Your task to perform on an android device: Open Amazon Image 0: 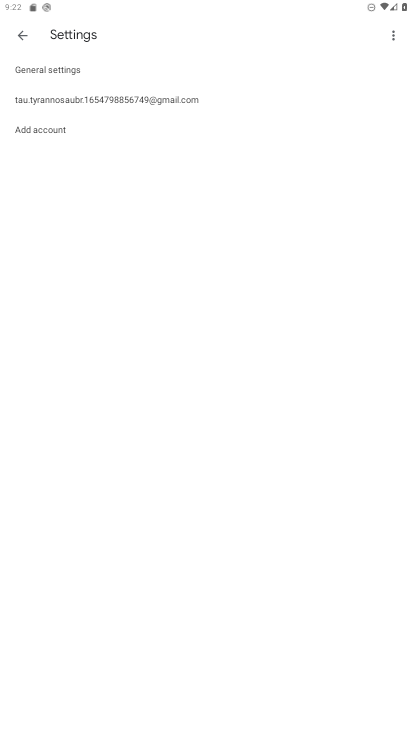
Step 0: press home button
Your task to perform on an android device: Open Amazon Image 1: 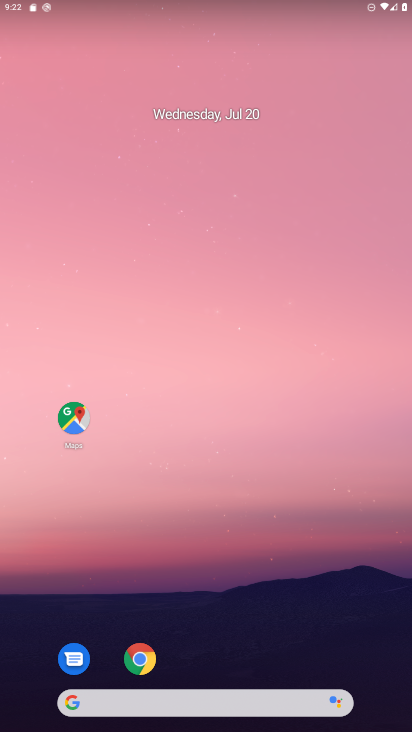
Step 1: drag from (282, 520) to (239, 119)
Your task to perform on an android device: Open Amazon Image 2: 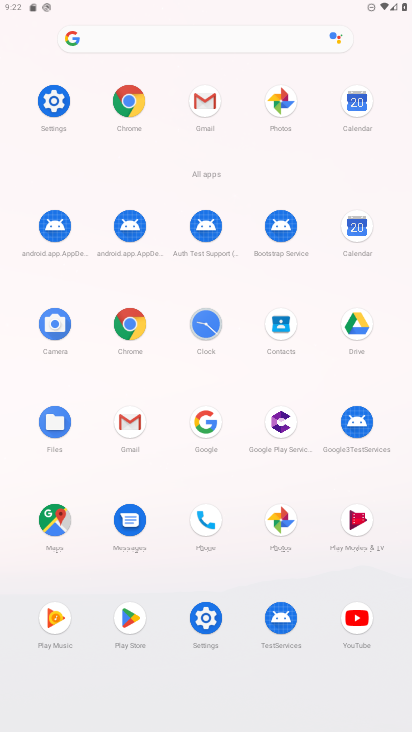
Step 2: click (124, 311)
Your task to perform on an android device: Open Amazon Image 3: 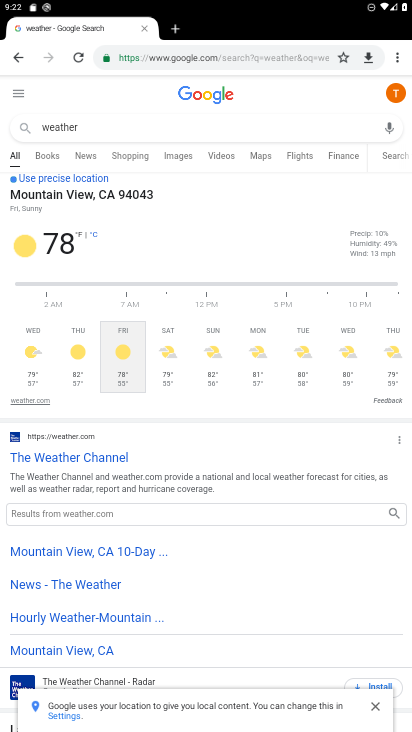
Step 3: click (202, 65)
Your task to perform on an android device: Open Amazon Image 4: 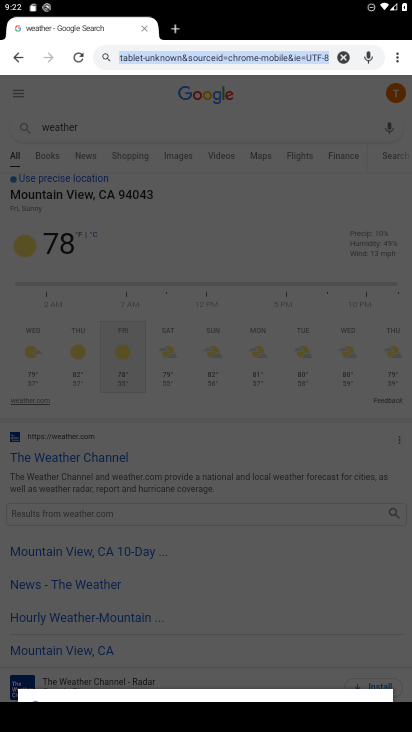
Step 4: type "Amazon"
Your task to perform on an android device: Open Amazon Image 5: 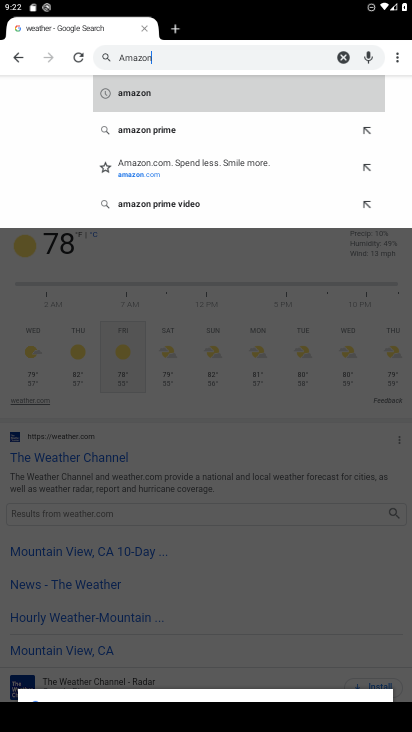
Step 5: click (145, 173)
Your task to perform on an android device: Open Amazon Image 6: 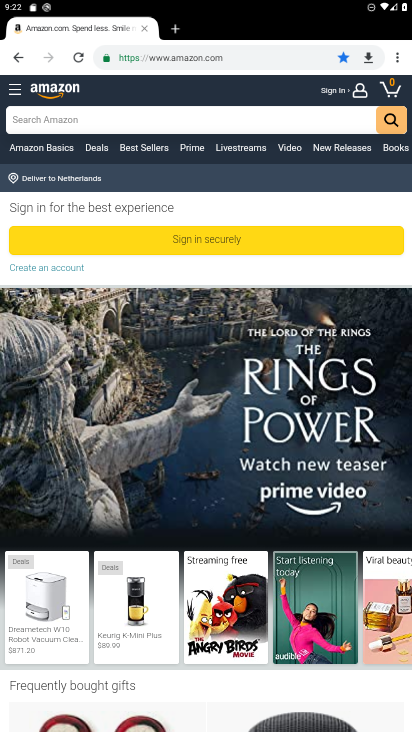
Step 6: task complete